Your task to perform on an android device: Open Maps and search for coffee Image 0: 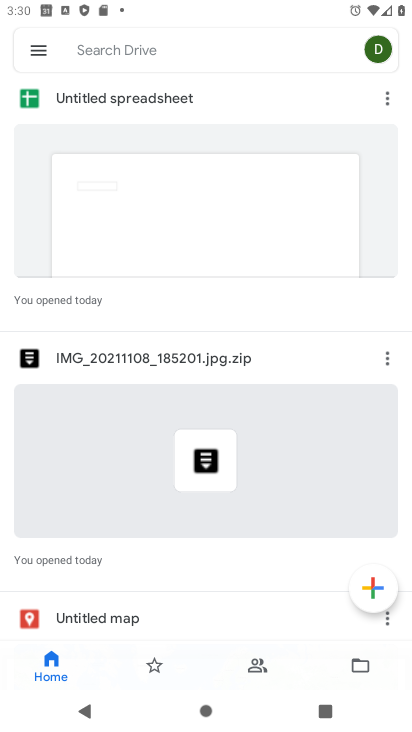
Step 0: press home button
Your task to perform on an android device: Open Maps and search for coffee Image 1: 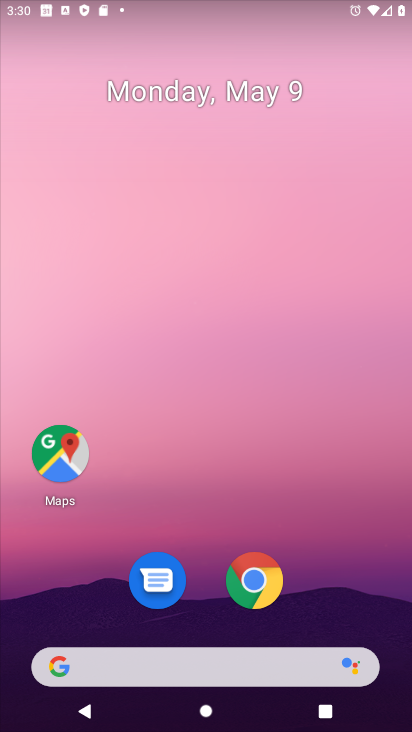
Step 1: click (49, 463)
Your task to perform on an android device: Open Maps and search for coffee Image 2: 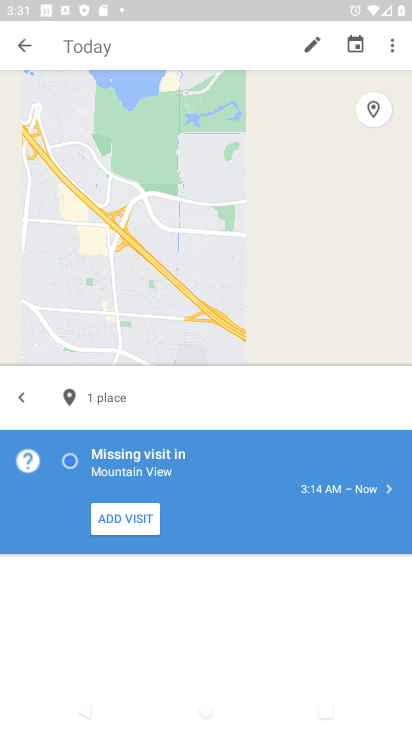
Step 2: click (19, 45)
Your task to perform on an android device: Open Maps and search for coffee Image 3: 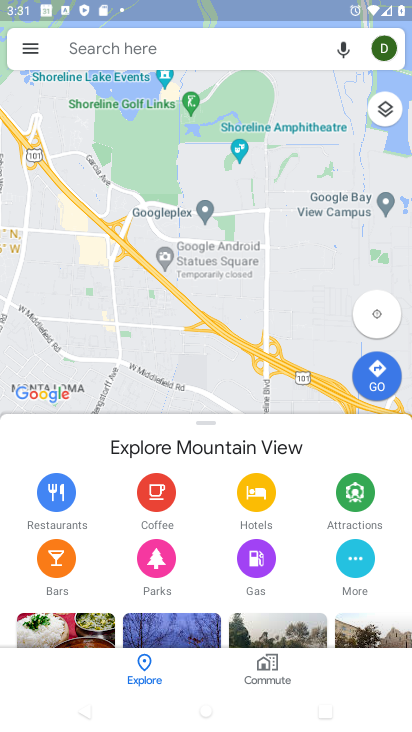
Step 3: click (138, 42)
Your task to perform on an android device: Open Maps and search for coffee Image 4: 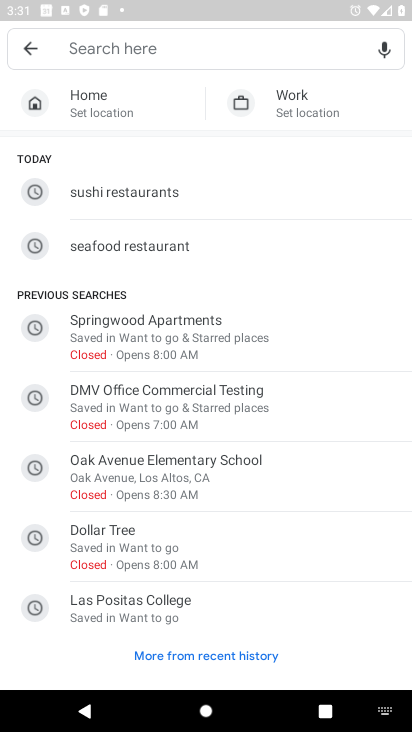
Step 4: type "coffee"
Your task to perform on an android device: Open Maps and search for coffee Image 5: 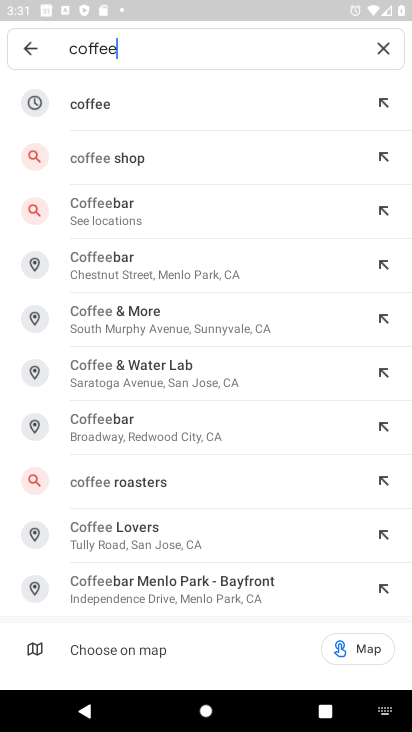
Step 5: click (192, 111)
Your task to perform on an android device: Open Maps and search for coffee Image 6: 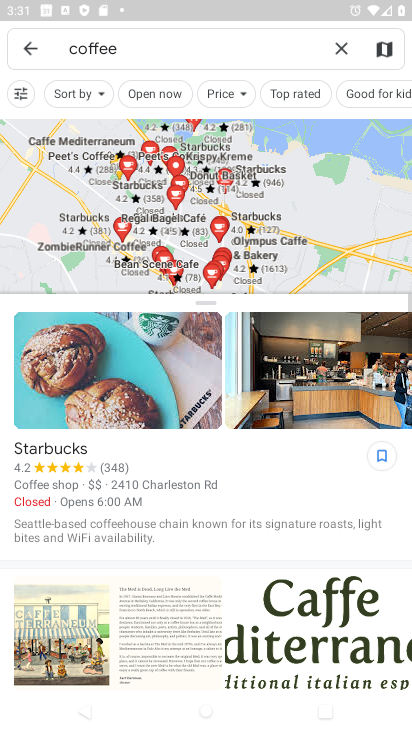
Step 6: task complete